Your task to perform on an android device: Open accessibility settings Image 0: 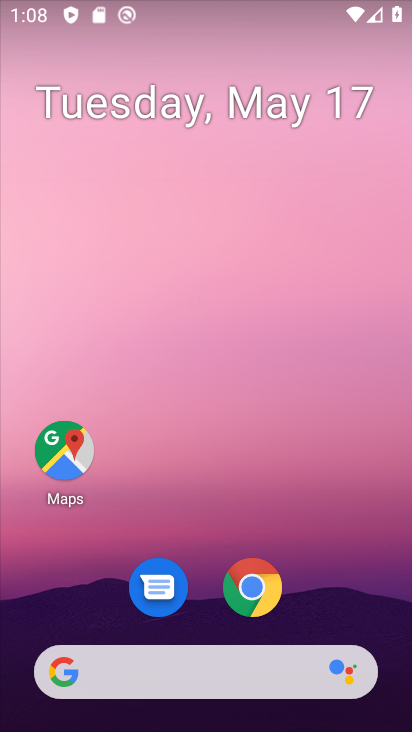
Step 0: drag from (368, 608) to (364, 273)
Your task to perform on an android device: Open accessibility settings Image 1: 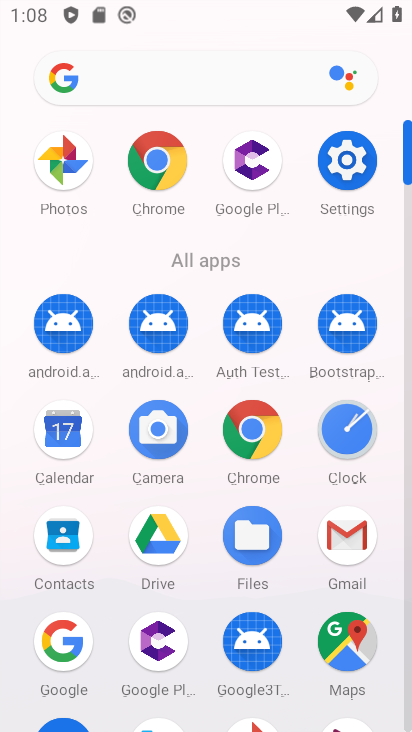
Step 1: click (334, 142)
Your task to perform on an android device: Open accessibility settings Image 2: 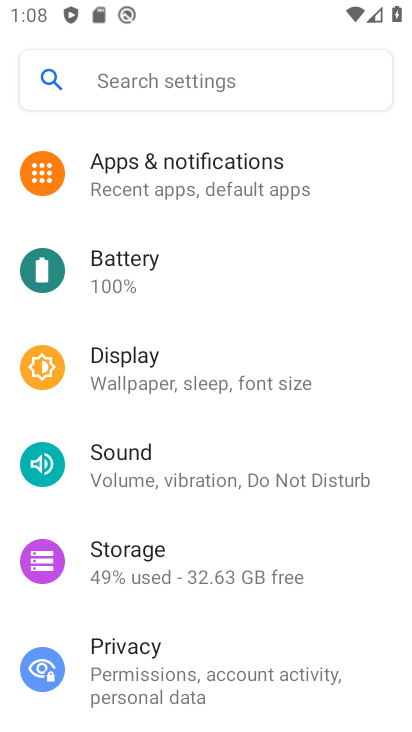
Step 2: drag from (251, 679) to (312, 261)
Your task to perform on an android device: Open accessibility settings Image 3: 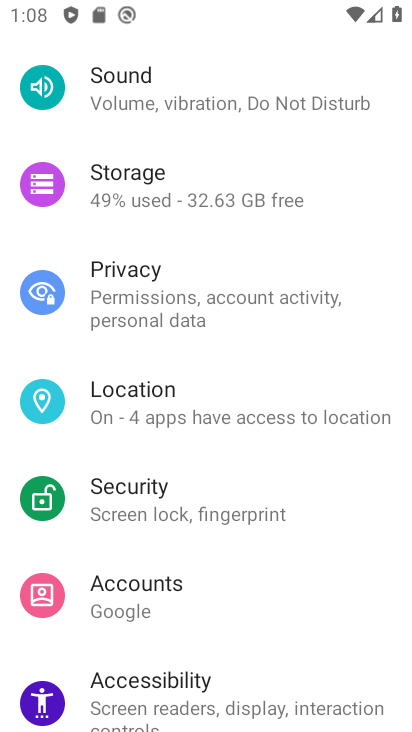
Step 3: click (244, 693)
Your task to perform on an android device: Open accessibility settings Image 4: 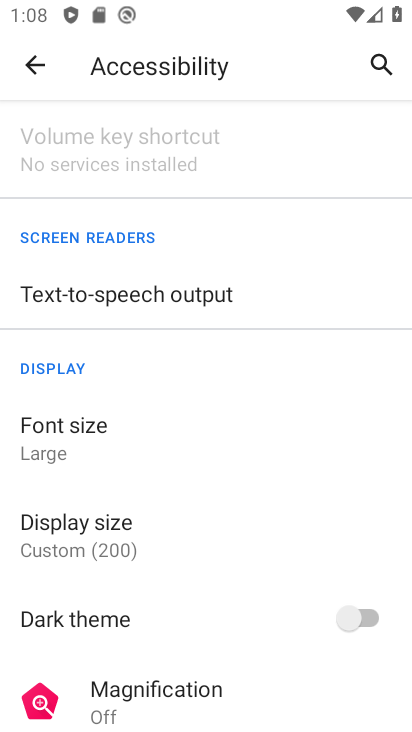
Step 4: task complete